Your task to perform on an android device: turn off sleep mode Image 0: 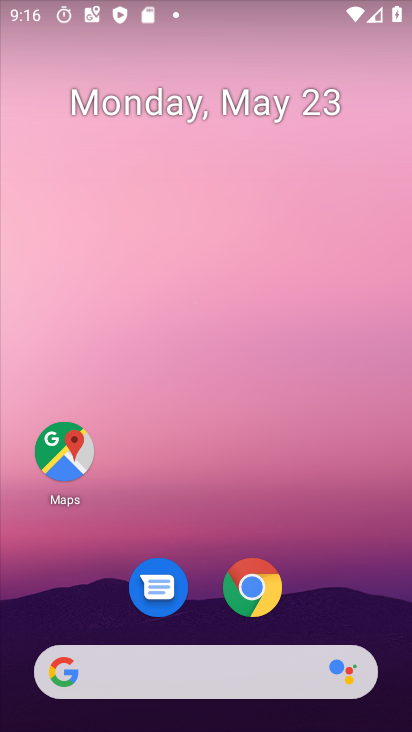
Step 0: drag from (322, 597) to (54, 121)
Your task to perform on an android device: turn off sleep mode Image 1: 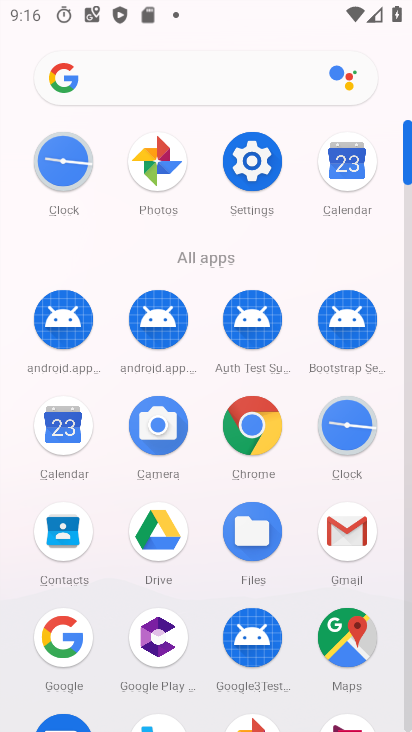
Step 1: click (255, 154)
Your task to perform on an android device: turn off sleep mode Image 2: 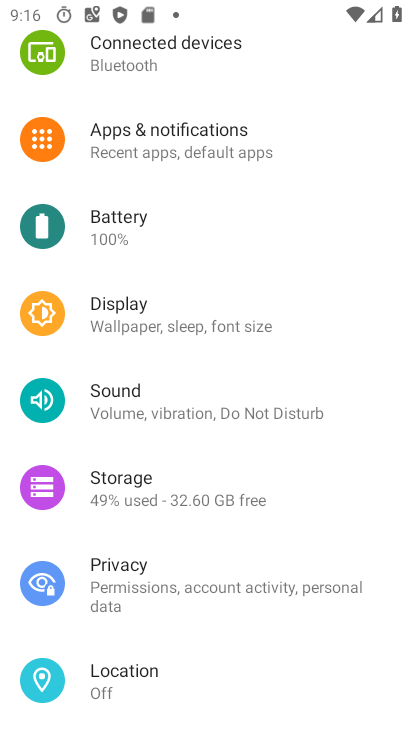
Step 2: task complete